Your task to perform on an android device: turn on javascript in the chrome app Image 0: 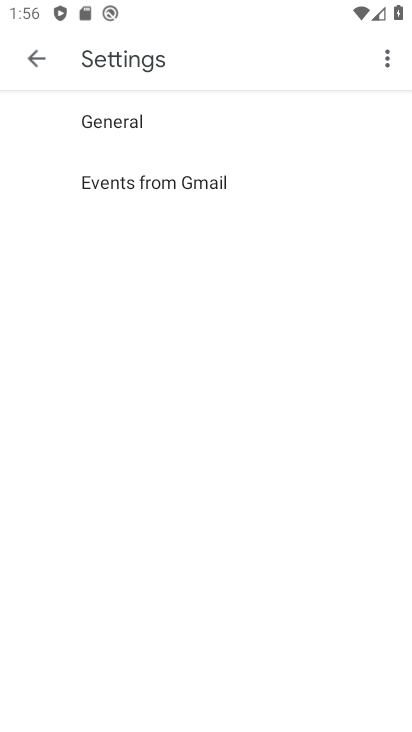
Step 0: press home button
Your task to perform on an android device: turn on javascript in the chrome app Image 1: 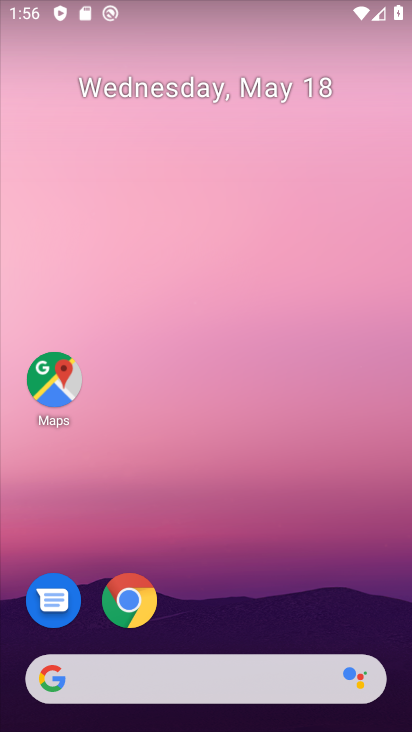
Step 1: click (121, 611)
Your task to perform on an android device: turn on javascript in the chrome app Image 2: 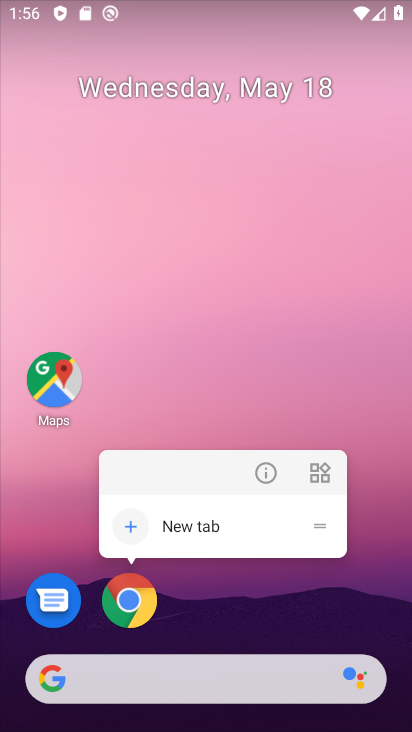
Step 2: click (142, 607)
Your task to perform on an android device: turn on javascript in the chrome app Image 3: 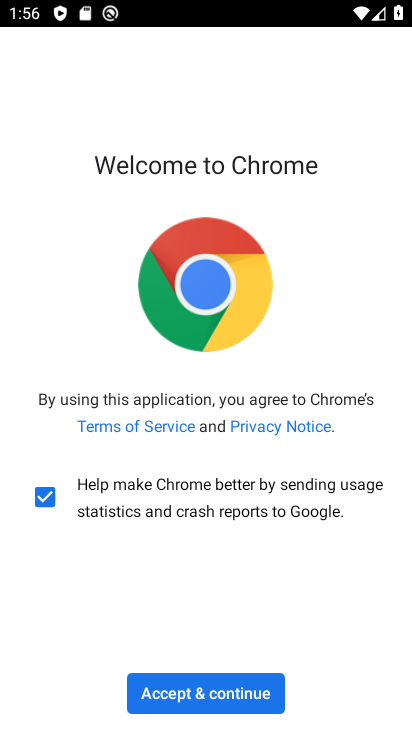
Step 3: click (197, 700)
Your task to perform on an android device: turn on javascript in the chrome app Image 4: 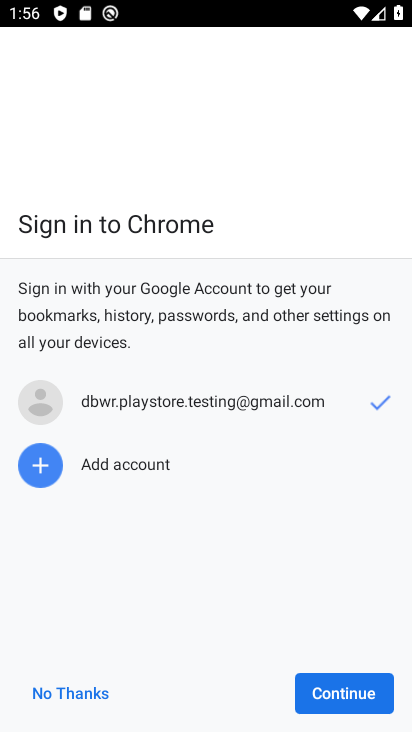
Step 4: click (336, 704)
Your task to perform on an android device: turn on javascript in the chrome app Image 5: 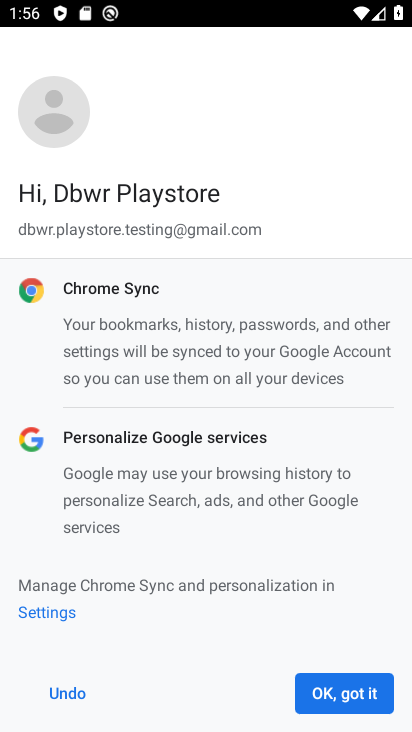
Step 5: click (340, 698)
Your task to perform on an android device: turn on javascript in the chrome app Image 6: 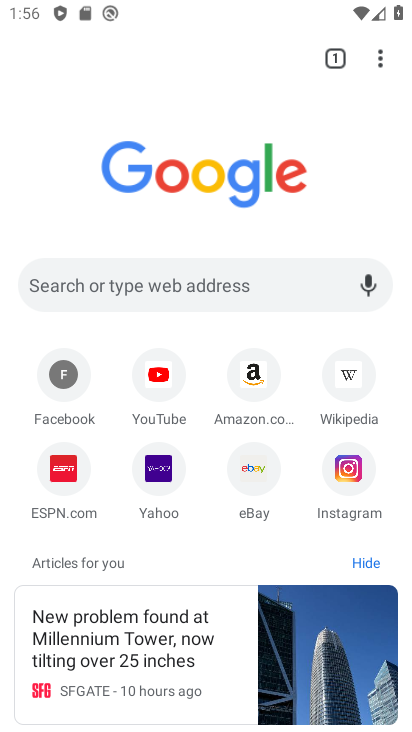
Step 6: drag from (377, 61) to (219, 503)
Your task to perform on an android device: turn on javascript in the chrome app Image 7: 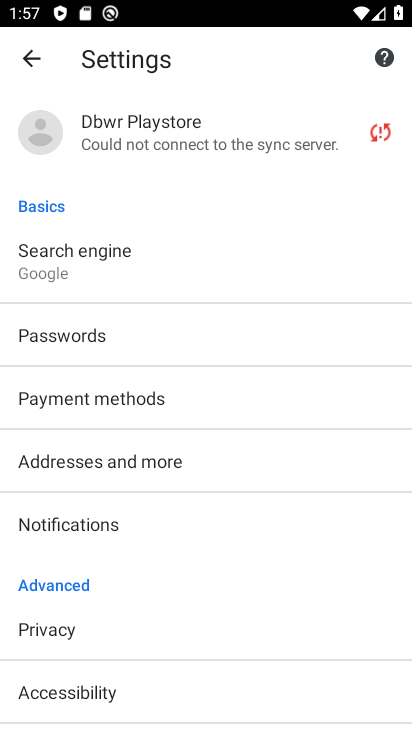
Step 7: drag from (145, 633) to (325, 164)
Your task to perform on an android device: turn on javascript in the chrome app Image 8: 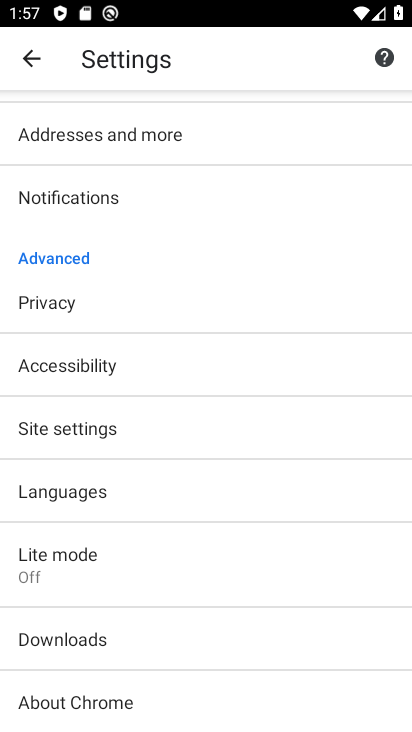
Step 8: click (99, 435)
Your task to perform on an android device: turn on javascript in the chrome app Image 9: 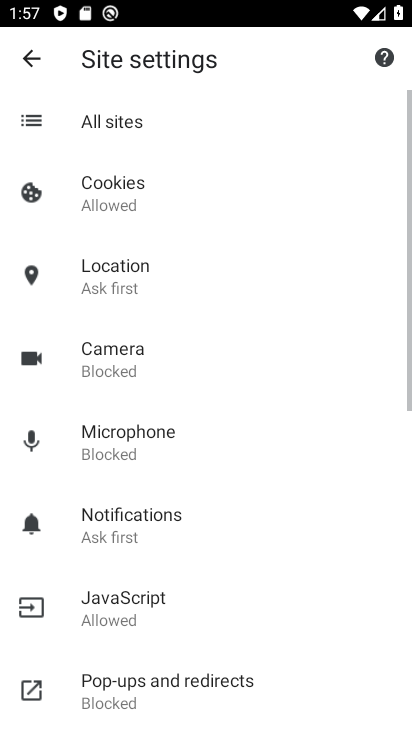
Step 9: click (143, 611)
Your task to perform on an android device: turn on javascript in the chrome app Image 10: 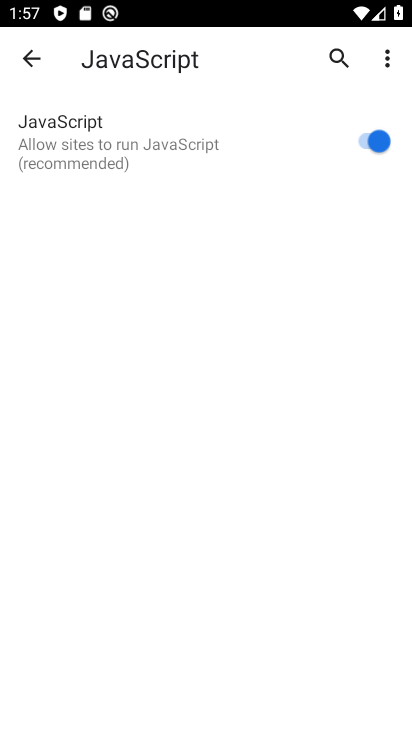
Step 10: task complete